Your task to perform on an android device: Show the shopping cart on costco.com. Image 0: 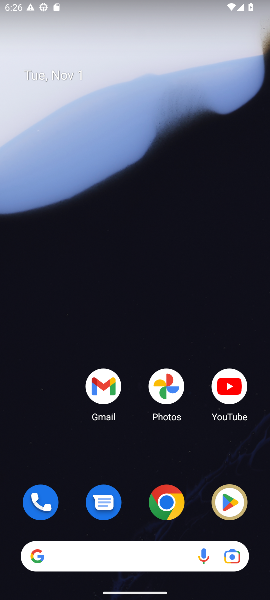
Step 0: click (170, 497)
Your task to perform on an android device: Show the shopping cart on costco.com. Image 1: 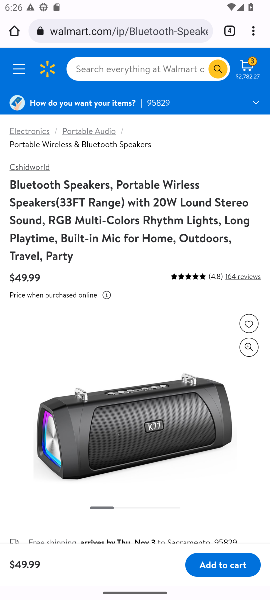
Step 1: click (13, 27)
Your task to perform on an android device: Show the shopping cart on costco.com. Image 2: 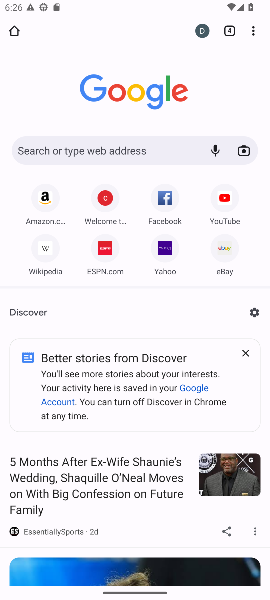
Step 2: click (106, 150)
Your task to perform on an android device: Show the shopping cart on costco.com. Image 3: 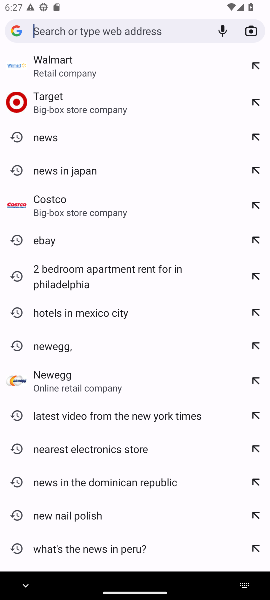
Step 3: type "costco.com"
Your task to perform on an android device: Show the shopping cart on costco.com. Image 4: 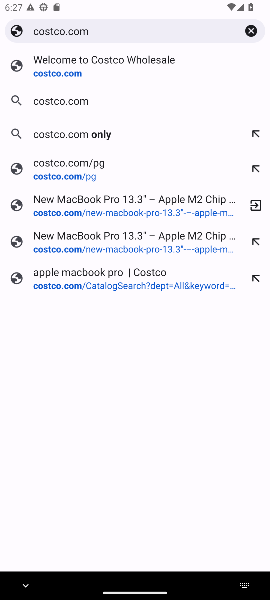
Step 4: click (62, 70)
Your task to perform on an android device: Show the shopping cart on costco.com. Image 5: 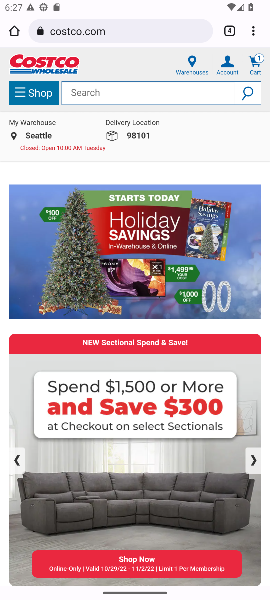
Step 5: task complete